Your task to perform on an android device: Open calendar and show me the third week of next month Image 0: 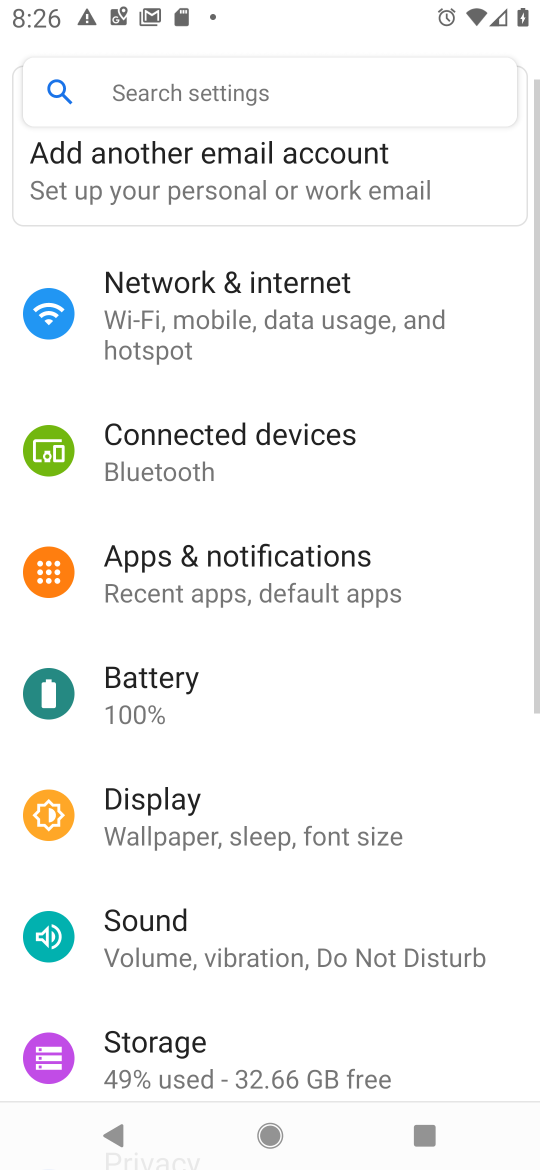
Step 0: press home button
Your task to perform on an android device: Open calendar and show me the third week of next month Image 1: 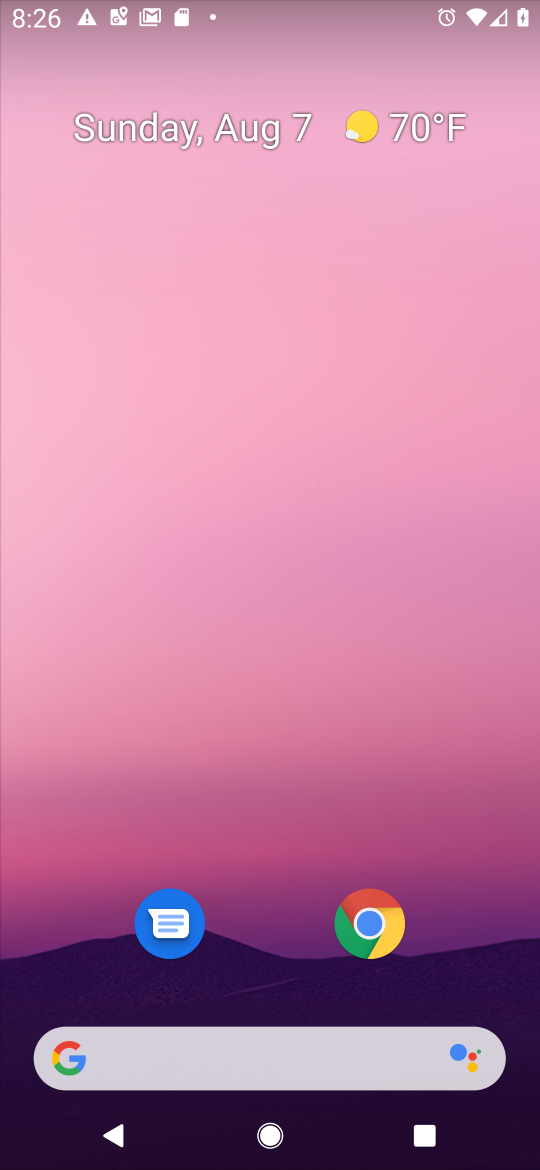
Step 1: drag from (420, 781) to (273, 3)
Your task to perform on an android device: Open calendar and show me the third week of next month Image 2: 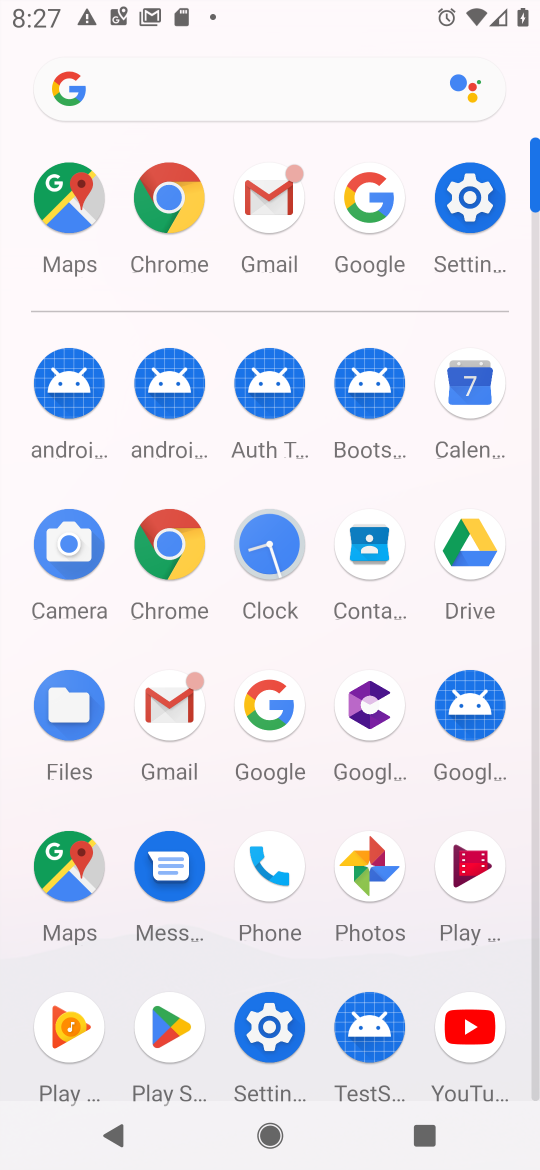
Step 2: click (476, 396)
Your task to perform on an android device: Open calendar and show me the third week of next month Image 3: 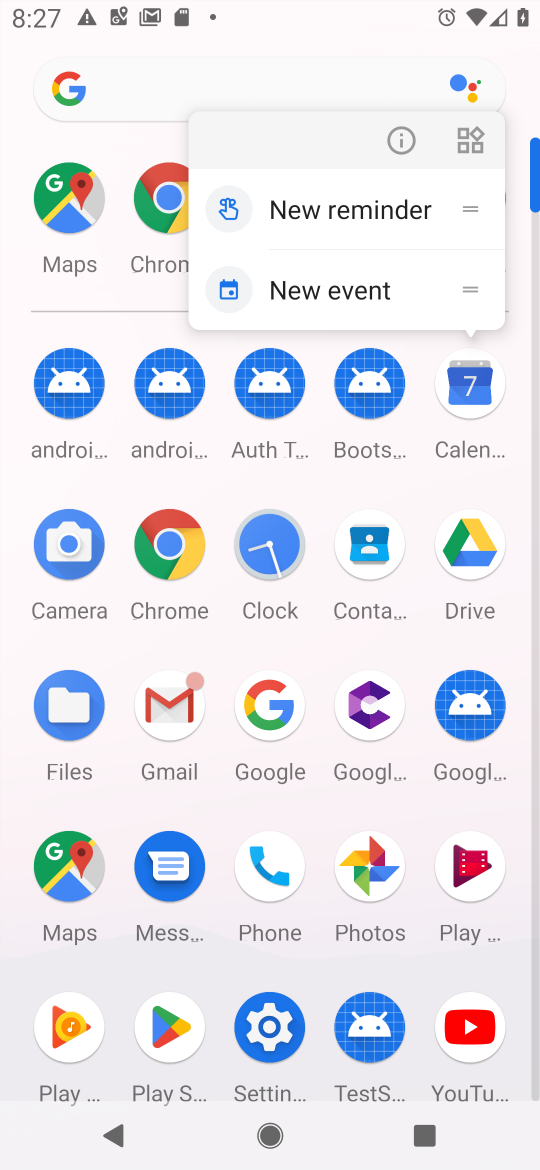
Step 3: click (457, 373)
Your task to perform on an android device: Open calendar and show me the third week of next month Image 4: 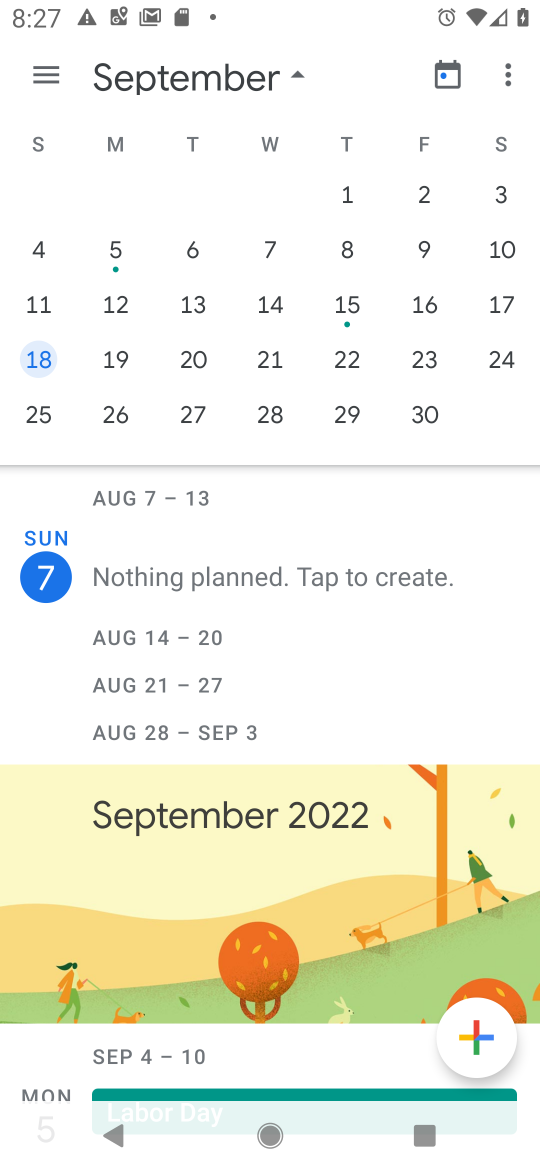
Step 4: click (127, 79)
Your task to perform on an android device: Open calendar and show me the third week of next month Image 5: 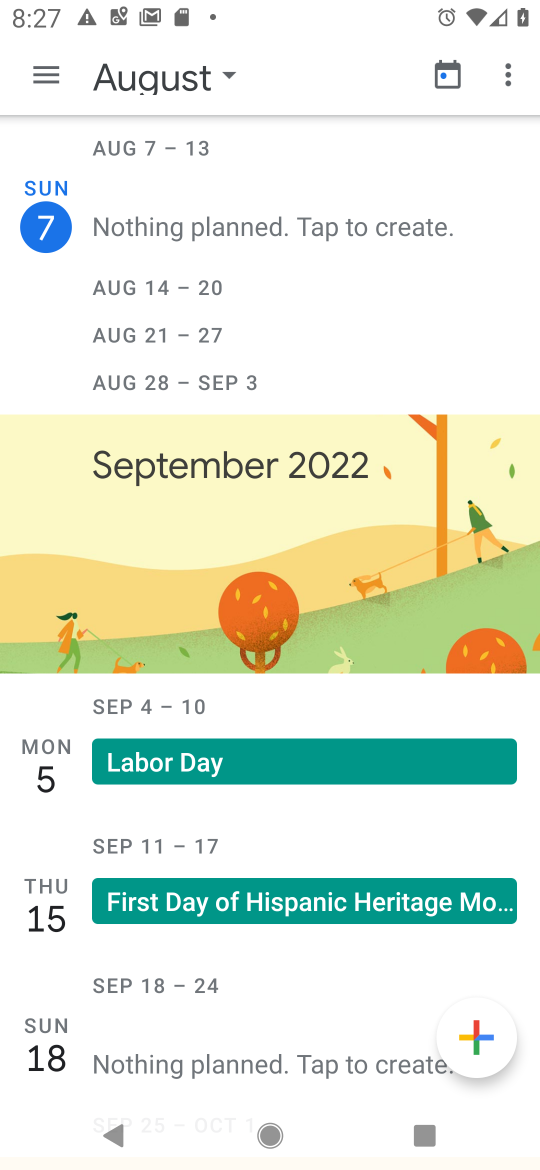
Step 5: click (182, 71)
Your task to perform on an android device: Open calendar and show me the third week of next month Image 6: 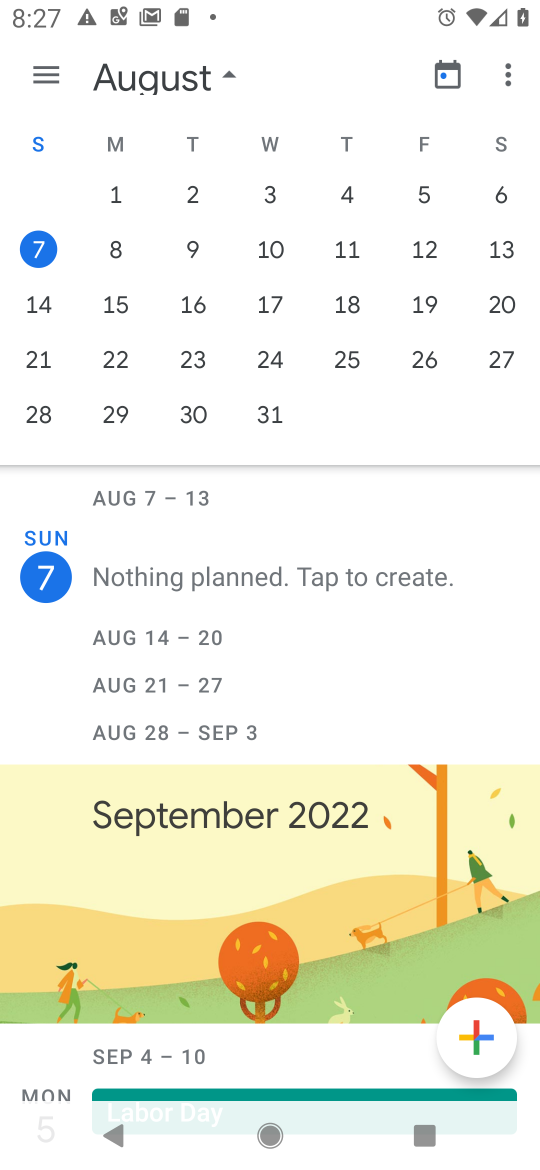
Step 6: drag from (481, 161) to (3, 302)
Your task to perform on an android device: Open calendar and show me the third week of next month Image 7: 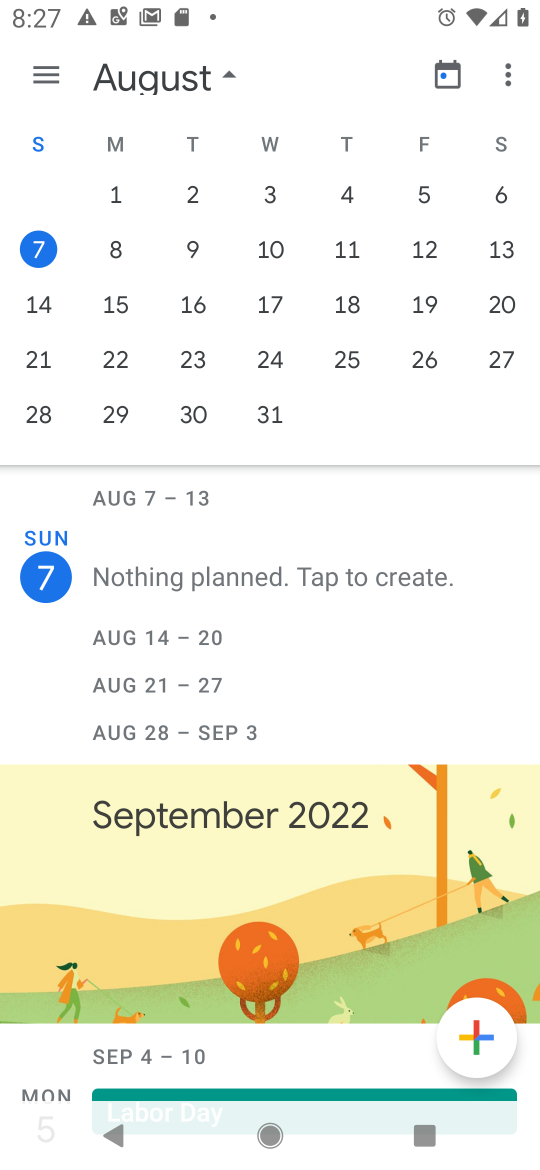
Step 7: drag from (460, 292) to (33, 230)
Your task to perform on an android device: Open calendar and show me the third week of next month Image 8: 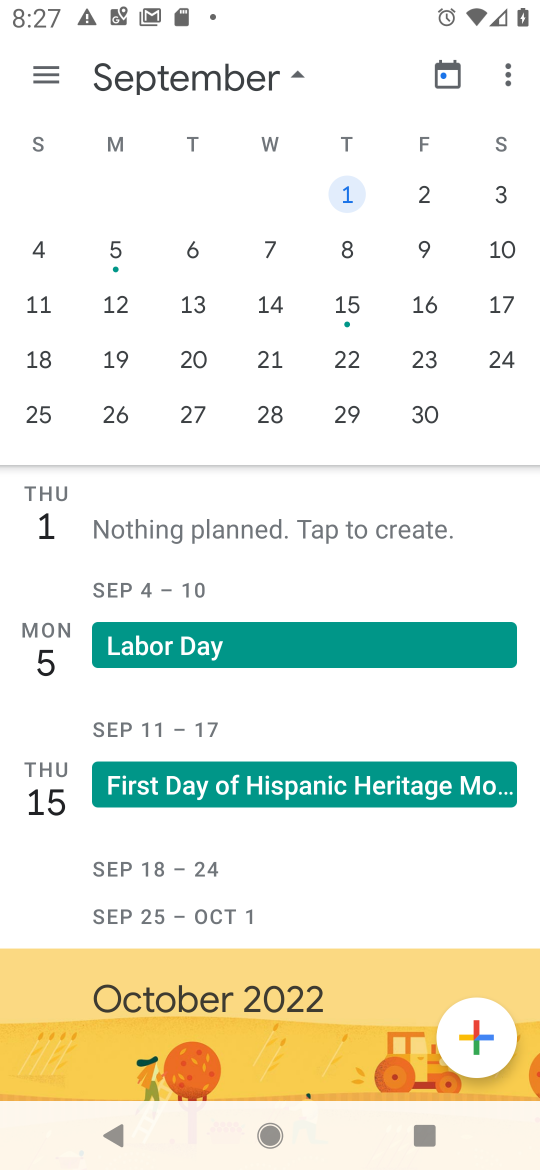
Step 8: click (34, 362)
Your task to perform on an android device: Open calendar and show me the third week of next month Image 9: 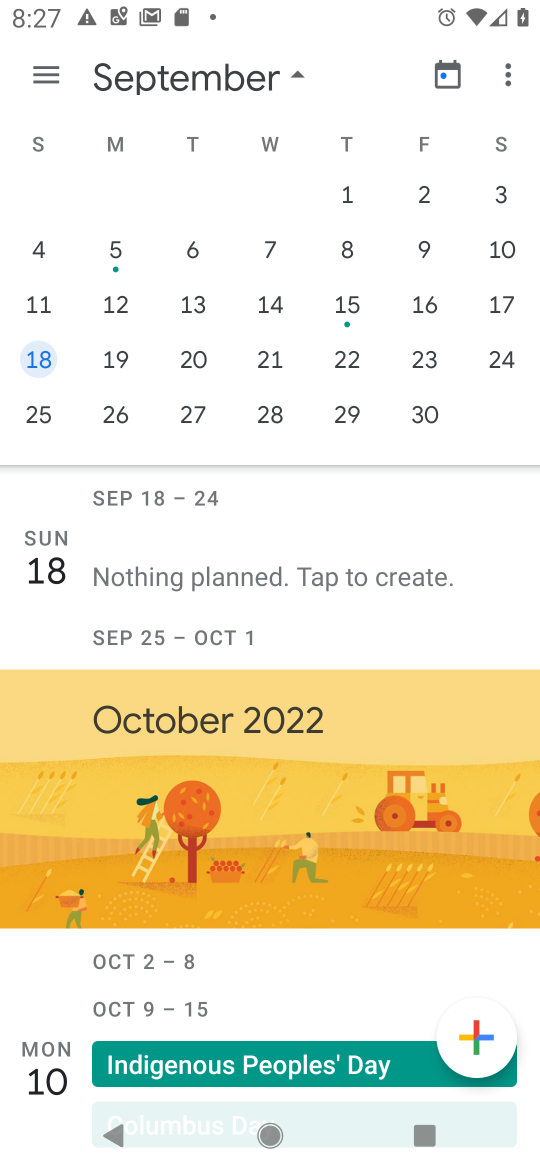
Step 9: task complete